Your task to perform on an android device: set an alarm Image 0: 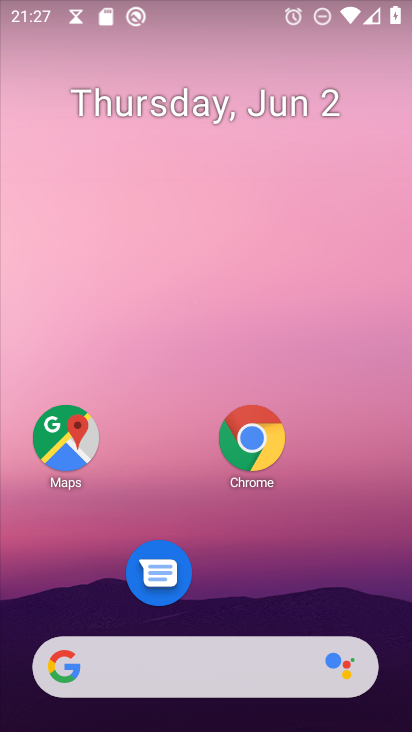
Step 0: press home button
Your task to perform on an android device: set an alarm Image 1: 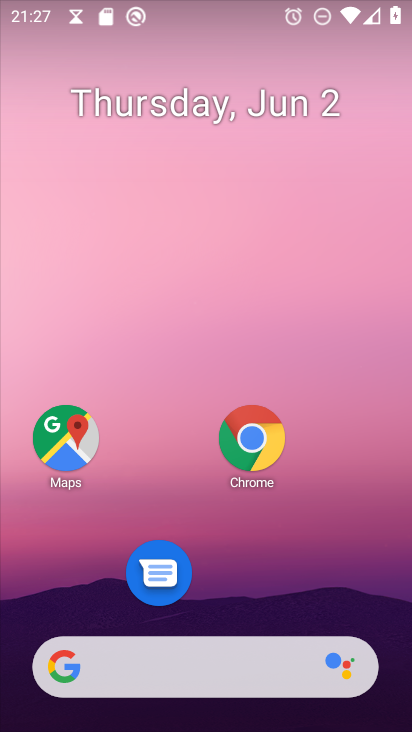
Step 1: drag from (194, 667) to (318, 109)
Your task to perform on an android device: set an alarm Image 2: 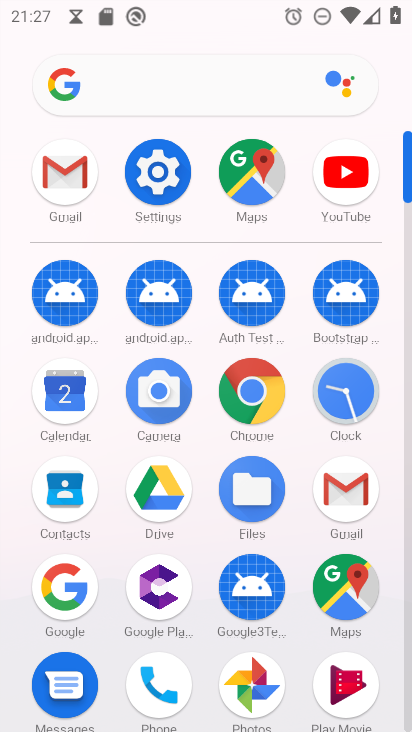
Step 2: click (341, 398)
Your task to perform on an android device: set an alarm Image 3: 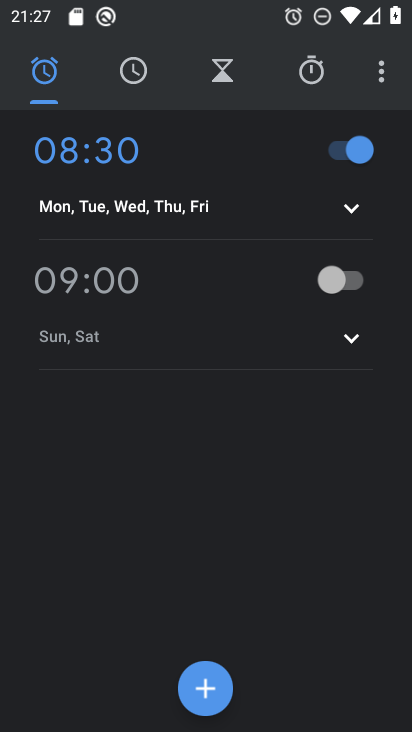
Step 3: click (355, 274)
Your task to perform on an android device: set an alarm Image 4: 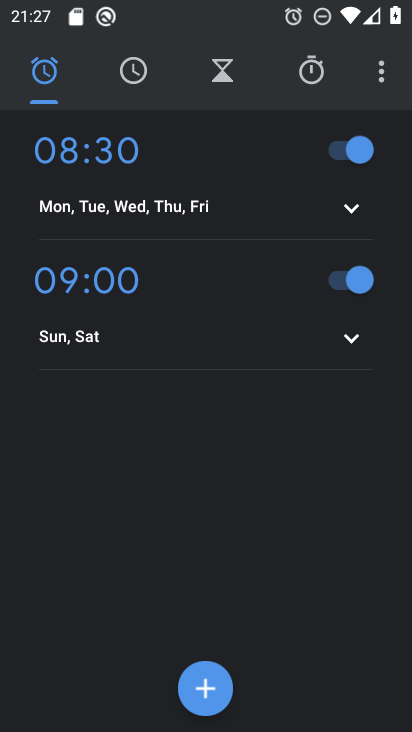
Step 4: task complete